Your task to perform on an android device: Open location settings Image 0: 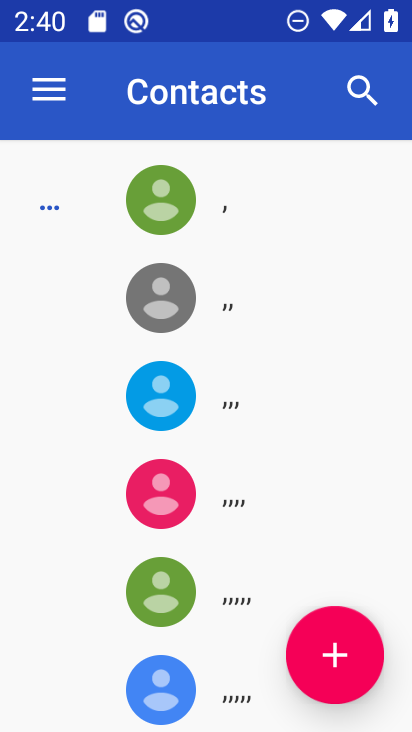
Step 0: press home button
Your task to perform on an android device: Open location settings Image 1: 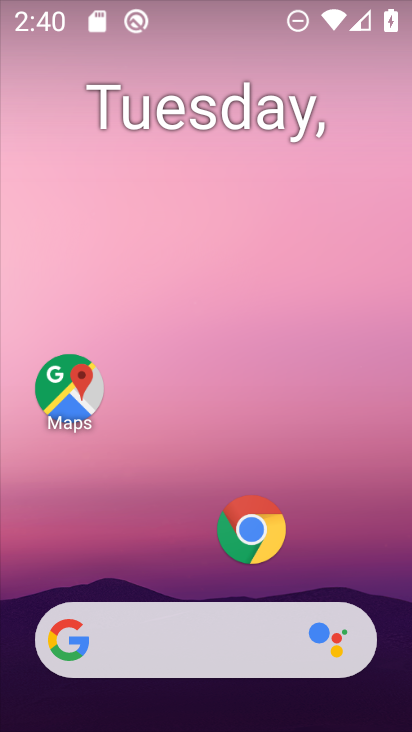
Step 1: drag from (208, 599) to (283, 0)
Your task to perform on an android device: Open location settings Image 2: 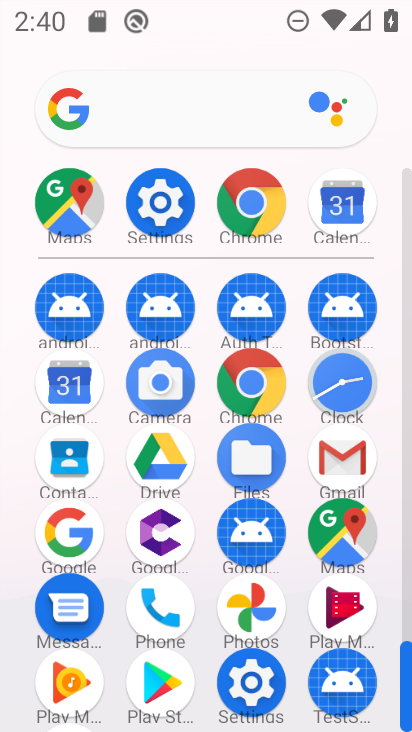
Step 2: click (180, 211)
Your task to perform on an android device: Open location settings Image 3: 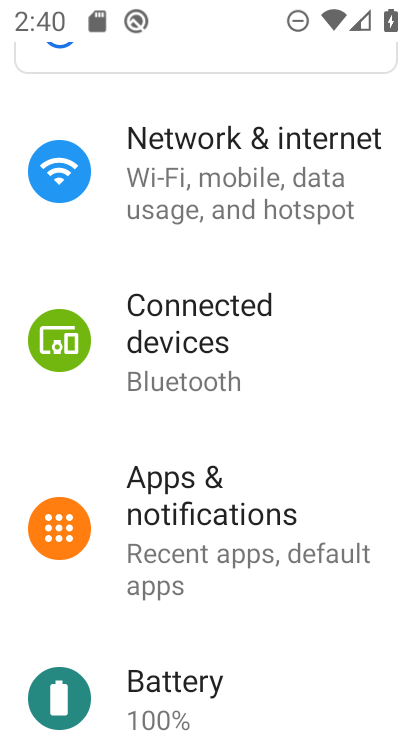
Step 3: drag from (156, 256) to (168, 330)
Your task to perform on an android device: Open location settings Image 4: 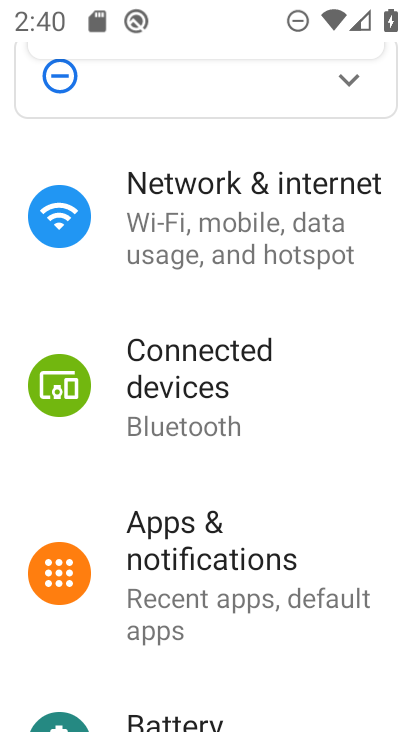
Step 4: drag from (163, 184) to (213, 323)
Your task to perform on an android device: Open location settings Image 5: 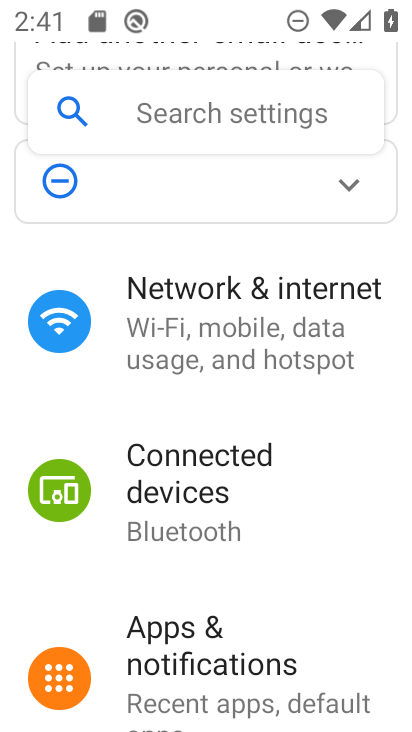
Step 5: click (220, 123)
Your task to perform on an android device: Open location settings Image 6: 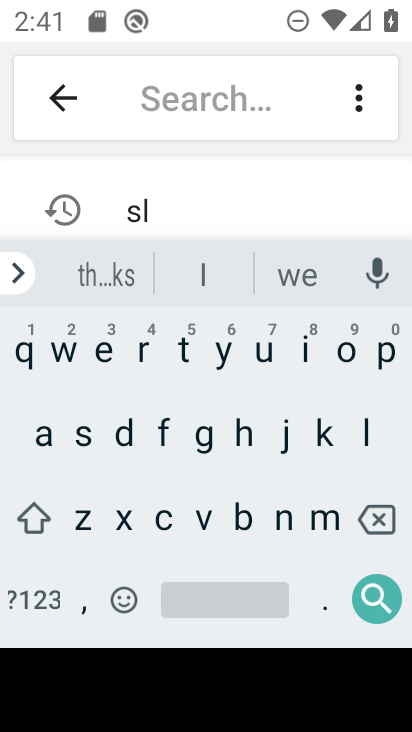
Step 6: click (362, 439)
Your task to perform on an android device: Open location settings Image 7: 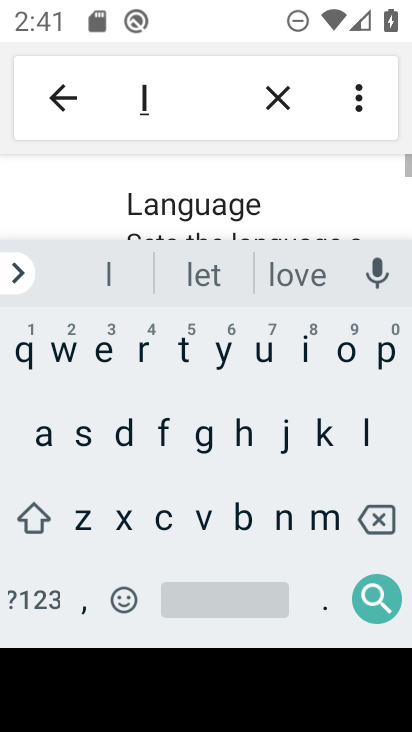
Step 7: click (348, 359)
Your task to perform on an android device: Open location settings Image 8: 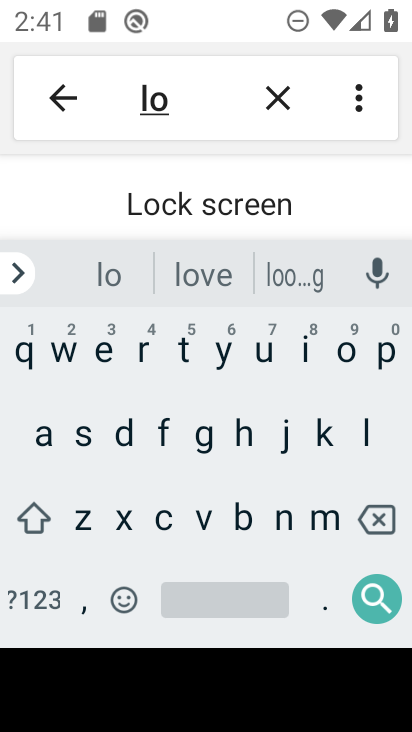
Step 8: press back button
Your task to perform on an android device: Open location settings Image 9: 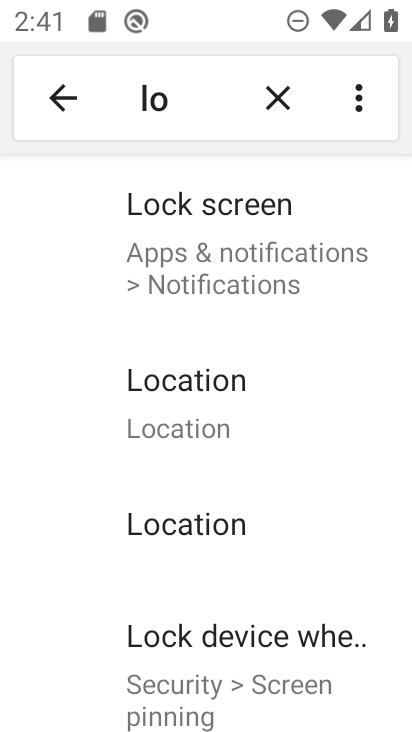
Step 9: click (177, 399)
Your task to perform on an android device: Open location settings Image 10: 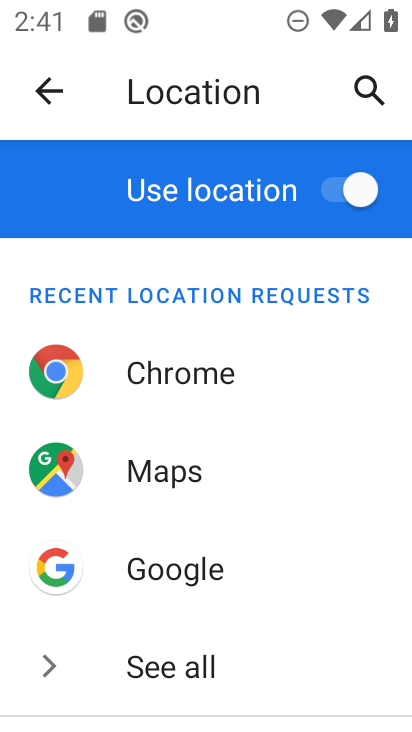
Step 10: task complete